Your task to perform on an android device: add a contact Image 0: 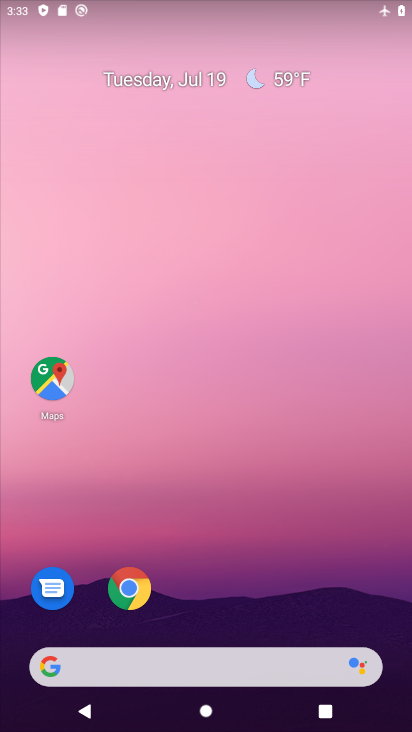
Step 0: press home button
Your task to perform on an android device: add a contact Image 1: 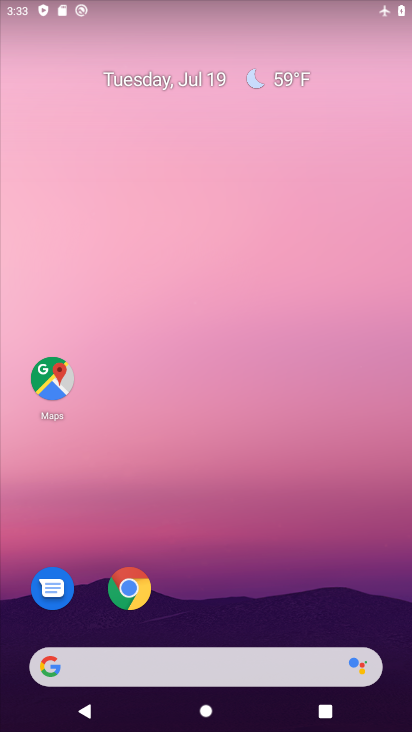
Step 1: drag from (262, 630) to (341, 2)
Your task to perform on an android device: add a contact Image 2: 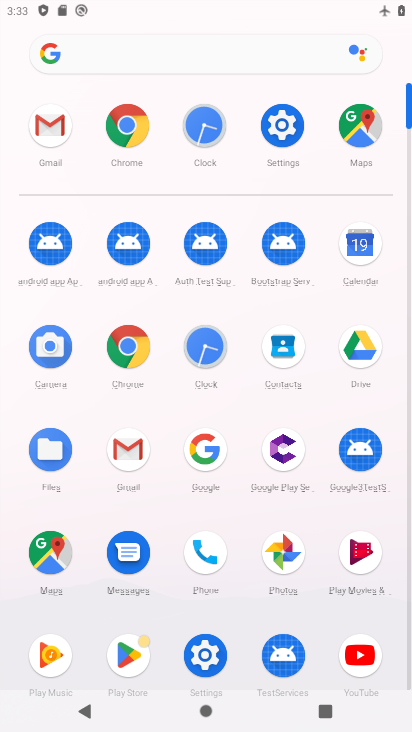
Step 2: click (284, 344)
Your task to perform on an android device: add a contact Image 3: 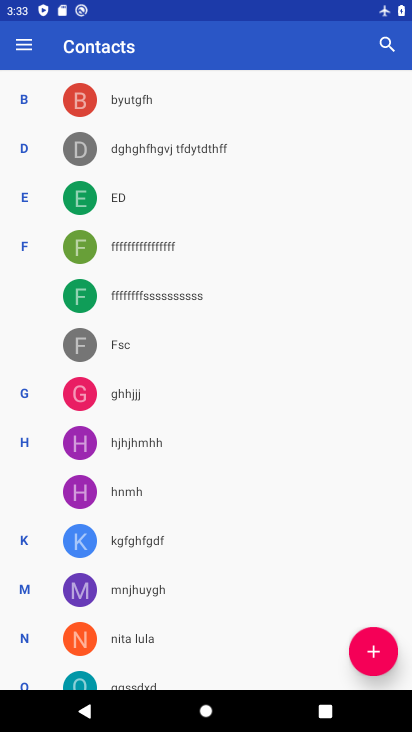
Step 3: click (381, 651)
Your task to perform on an android device: add a contact Image 4: 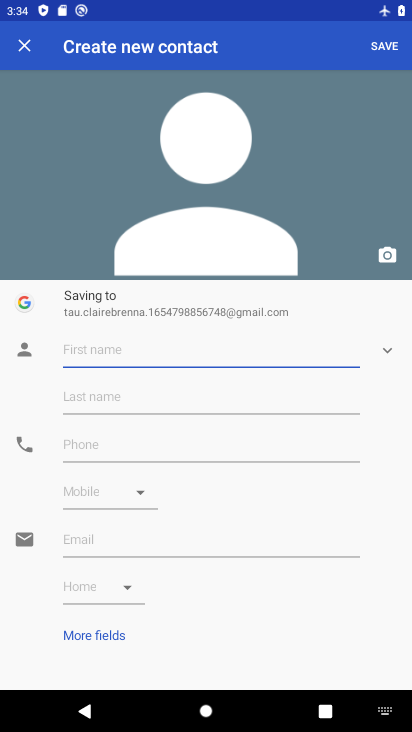
Step 4: type "nbnbn"
Your task to perform on an android device: add a contact Image 5: 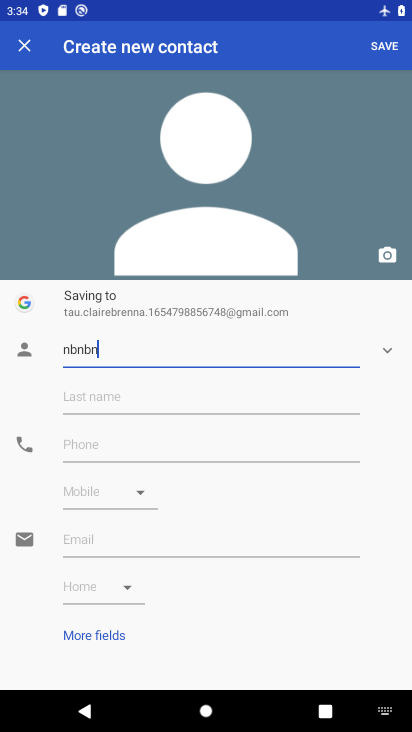
Step 5: click (219, 440)
Your task to perform on an android device: add a contact Image 6: 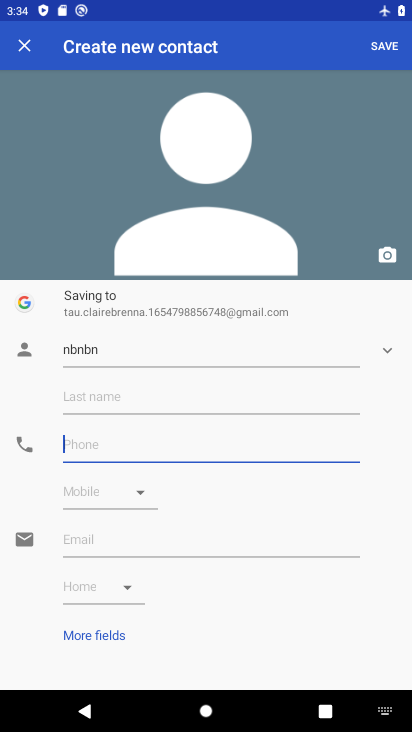
Step 6: type "76767676"
Your task to perform on an android device: add a contact Image 7: 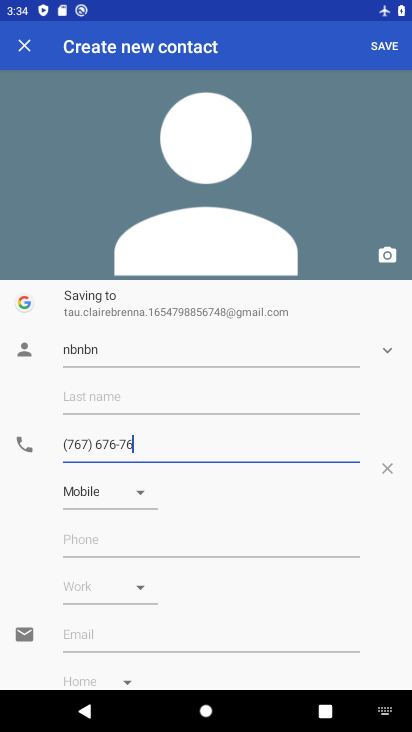
Step 7: click (388, 51)
Your task to perform on an android device: add a contact Image 8: 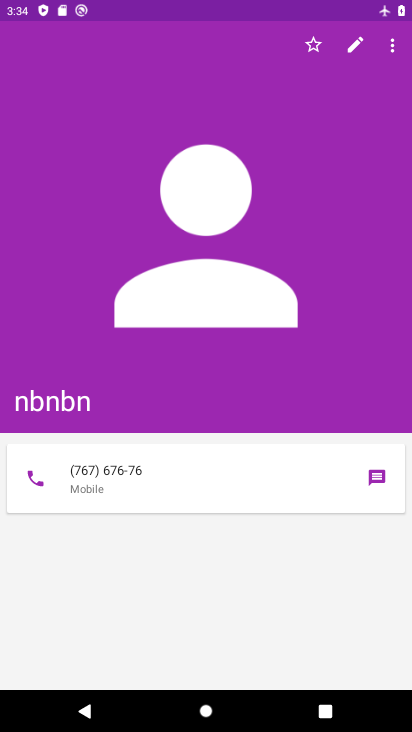
Step 8: task complete